Your task to perform on an android device: Go to CNN.com Image 0: 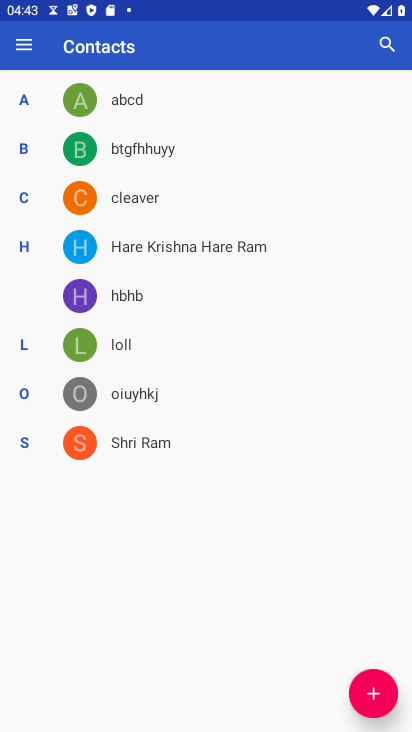
Step 0: press home button
Your task to perform on an android device: Go to CNN.com Image 1: 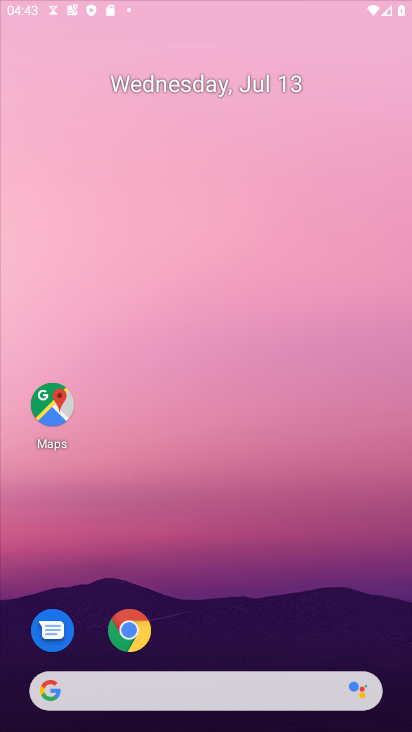
Step 1: drag from (198, 674) to (257, 100)
Your task to perform on an android device: Go to CNN.com Image 2: 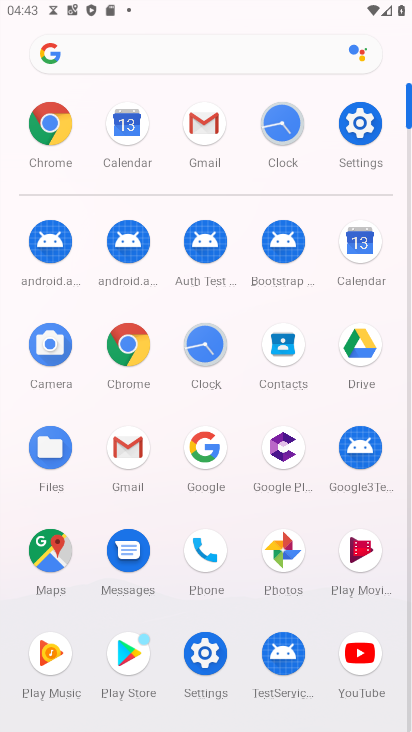
Step 2: click (117, 352)
Your task to perform on an android device: Go to CNN.com Image 3: 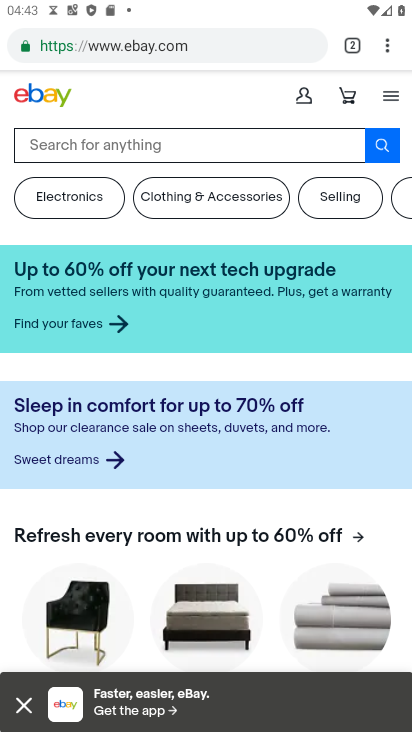
Step 3: click (231, 53)
Your task to perform on an android device: Go to CNN.com Image 4: 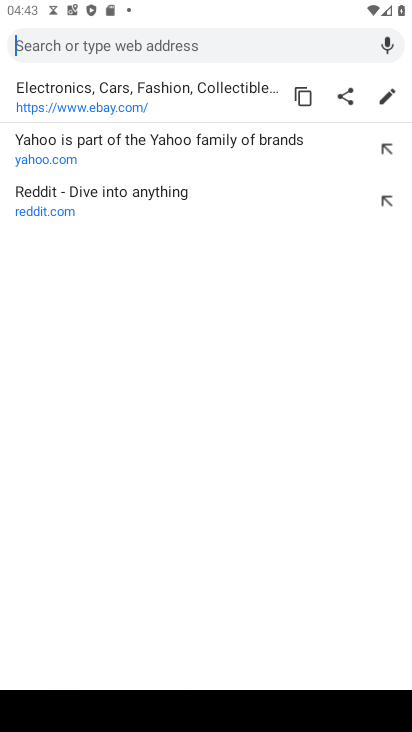
Step 4: type "cnn.com"
Your task to perform on an android device: Go to CNN.com Image 5: 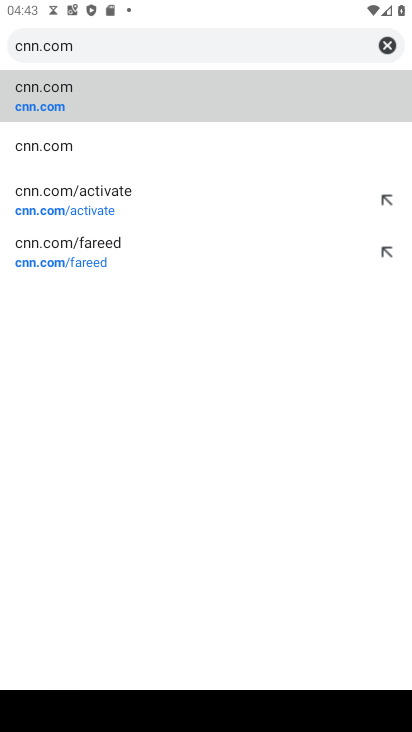
Step 5: click (110, 105)
Your task to perform on an android device: Go to CNN.com Image 6: 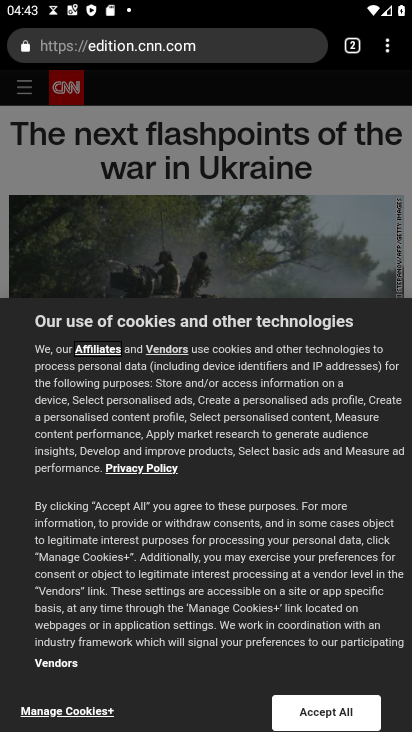
Step 6: task complete